Your task to perform on an android device: turn off wifi Image 0: 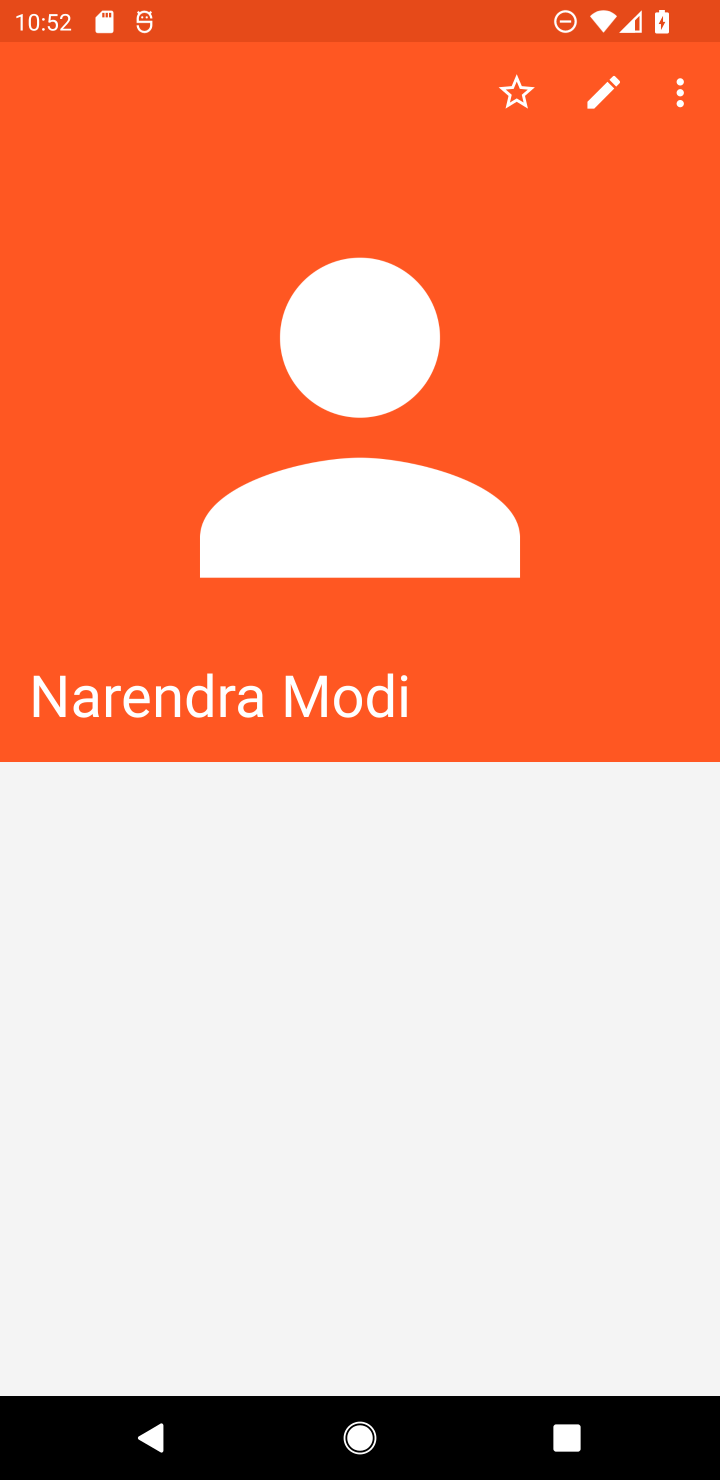
Step 0: press home button
Your task to perform on an android device: turn off wifi Image 1: 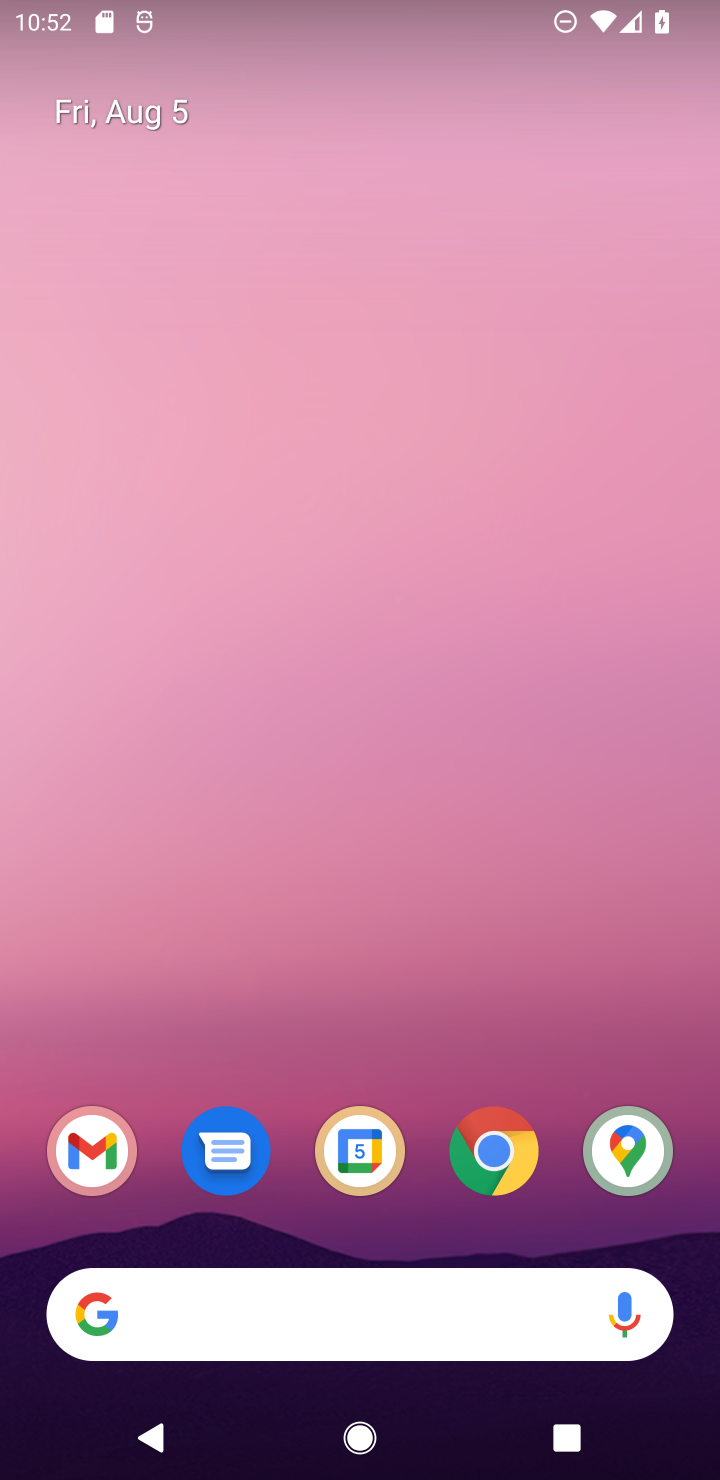
Step 1: drag from (350, 539) to (393, 352)
Your task to perform on an android device: turn off wifi Image 2: 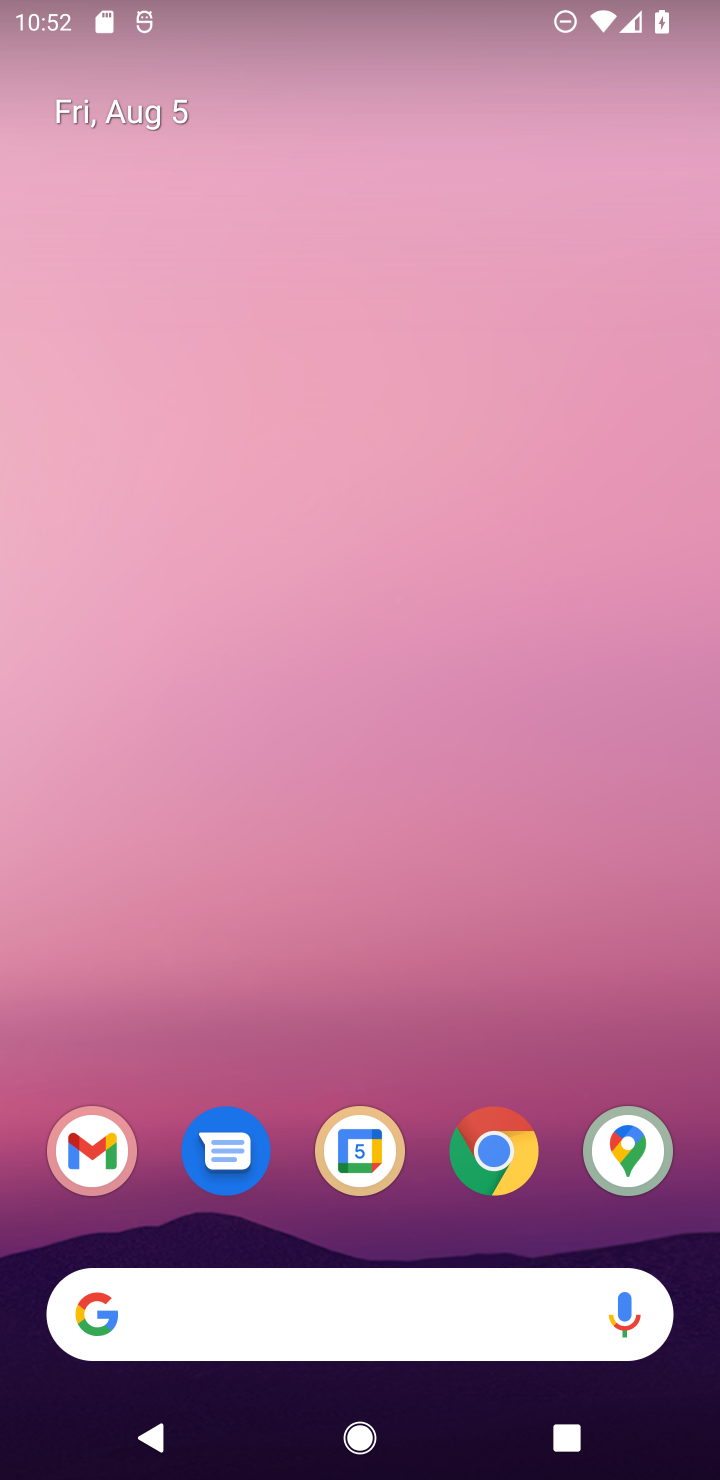
Step 2: drag from (327, 1184) to (300, 121)
Your task to perform on an android device: turn off wifi Image 3: 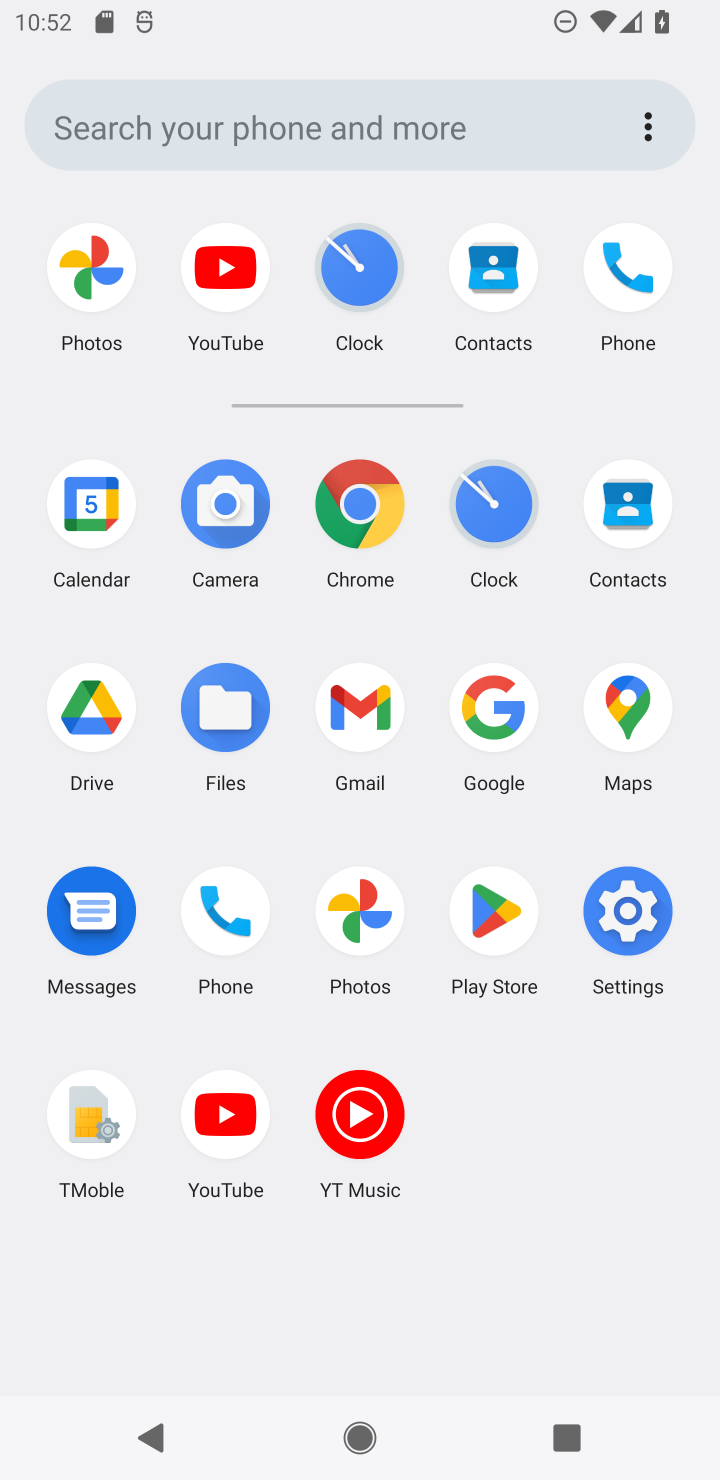
Step 3: click (625, 919)
Your task to perform on an android device: turn off wifi Image 4: 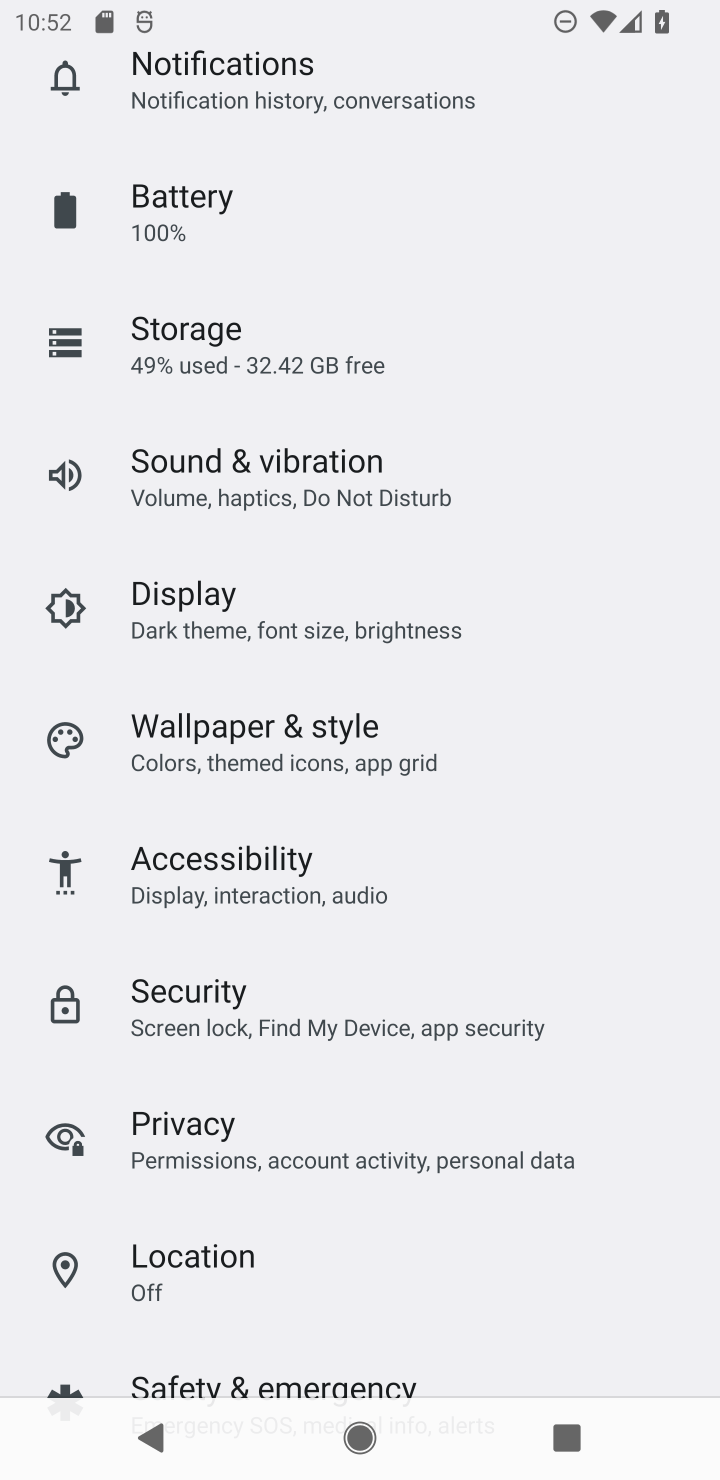
Step 4: drag from (362, 202) to (385, 949)
Your task to perform on an android device: turn off wifi Image 5: 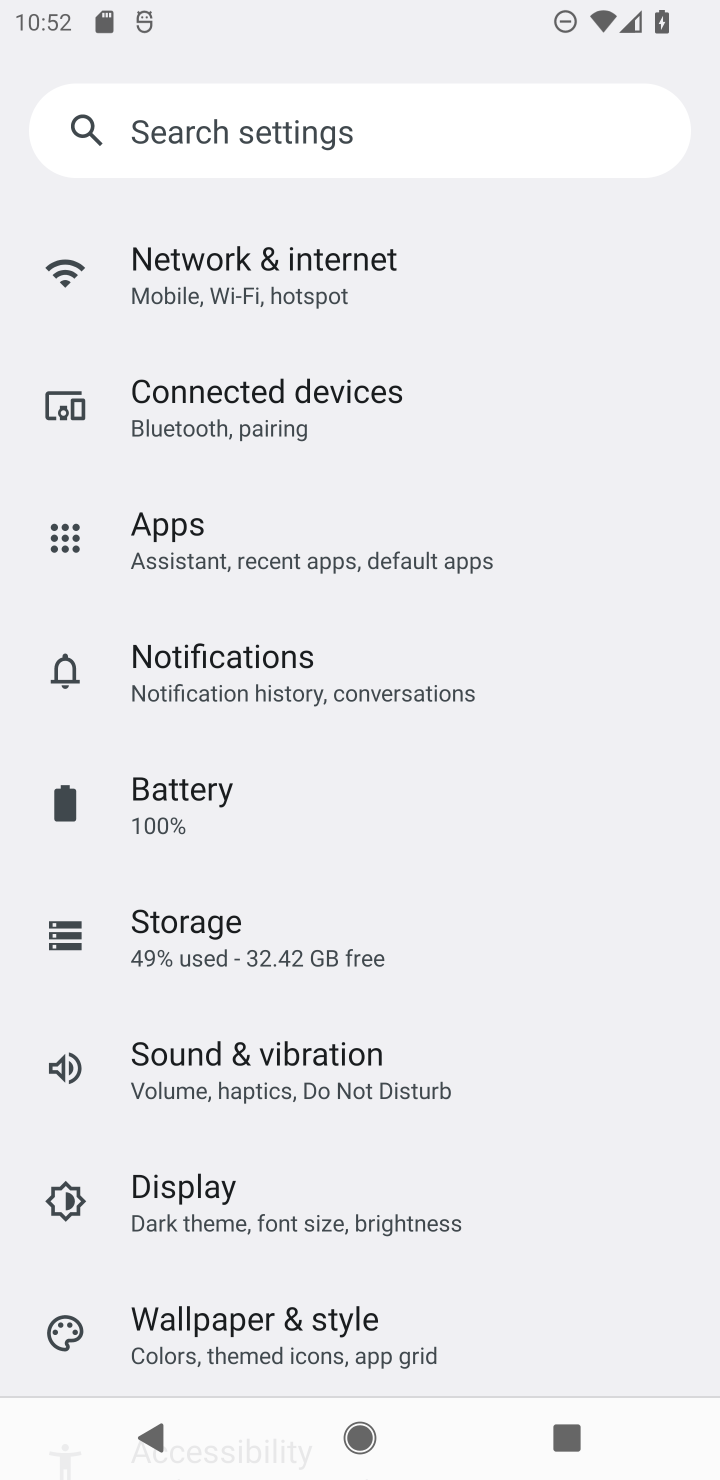
Step 5: drag from (388, 479) to (387, 880)
Your task to perform on an android device: turn off wifi Image 6: 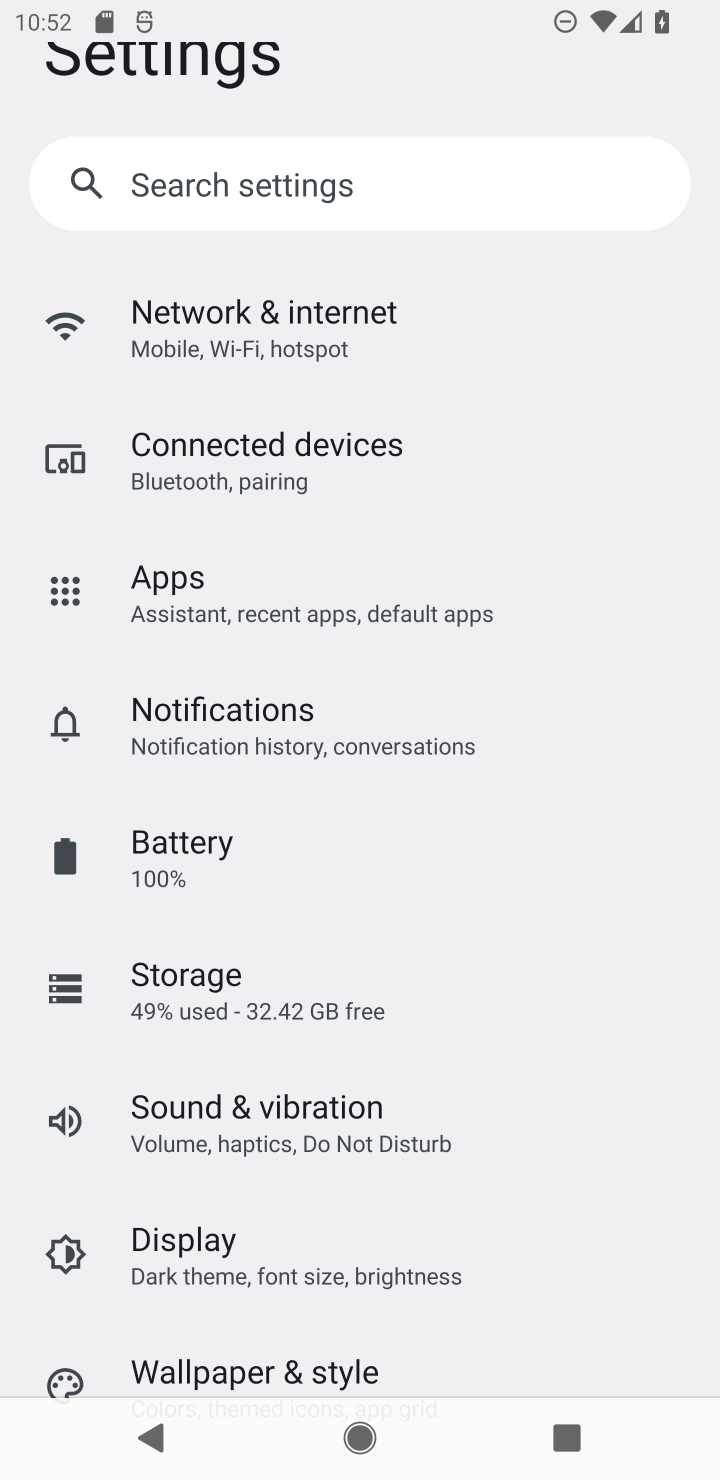
Step 6: click (306, 348)
Your task to perform on an android device: turn off wifi Image 7: 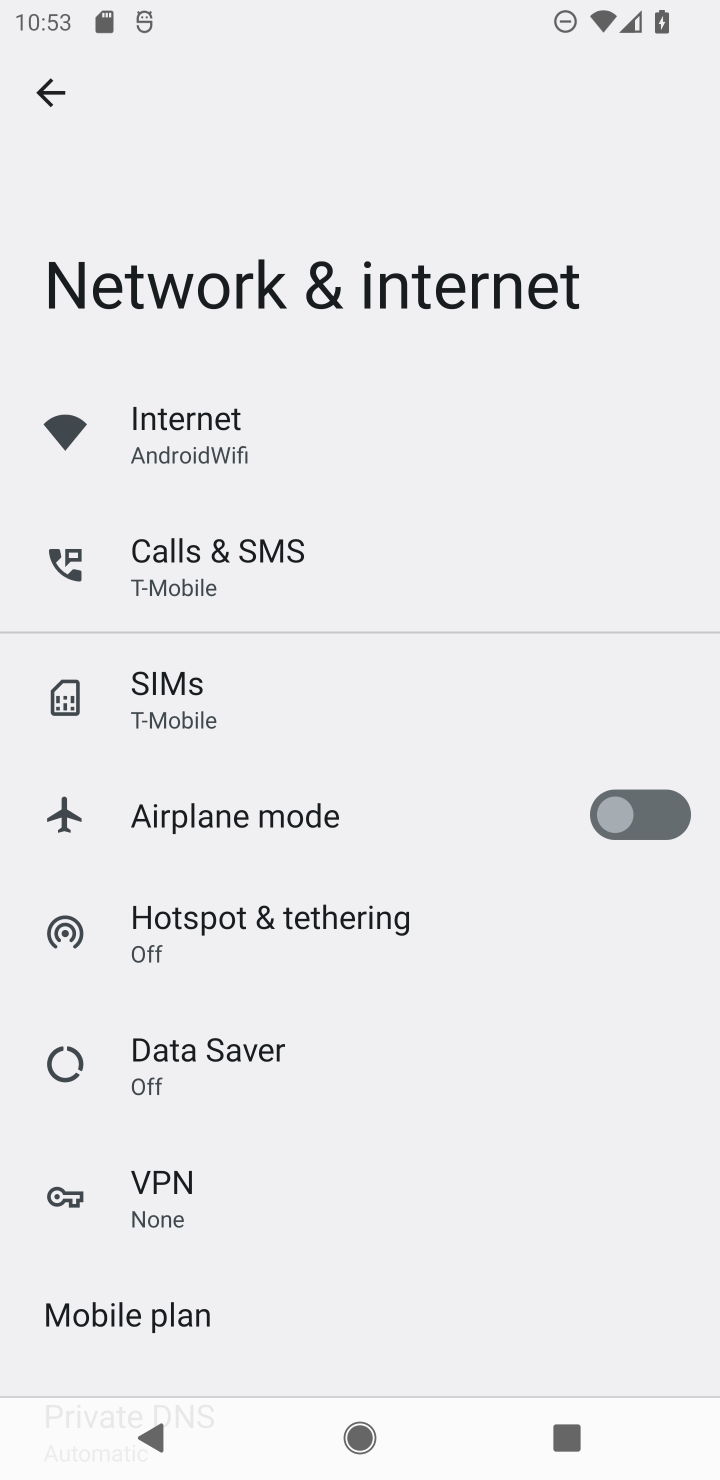
Step 7: click (209, 444)
Your task to perform on an android device: turn off wifi Image 8: 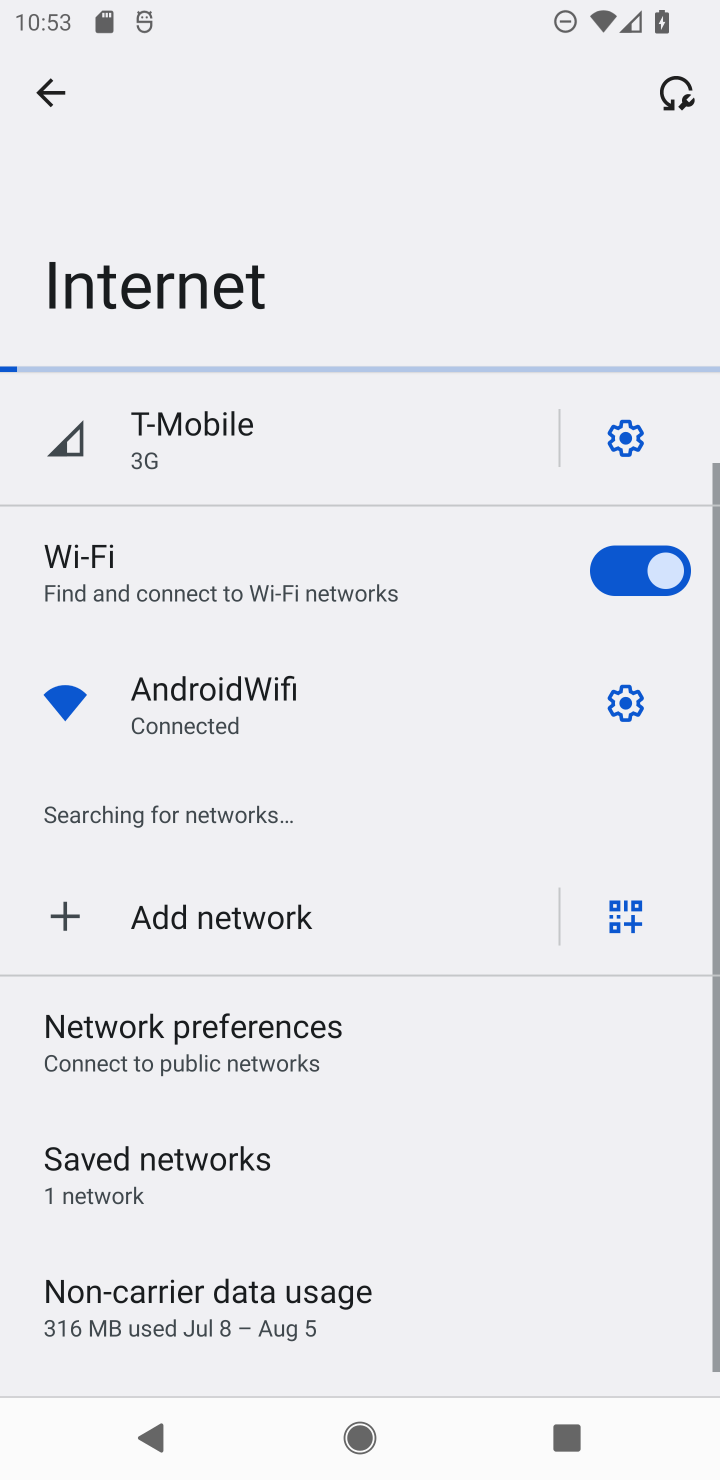
Step 8: click (610, 571)
Your task to perform on an android device: turn off wifi Image 9: 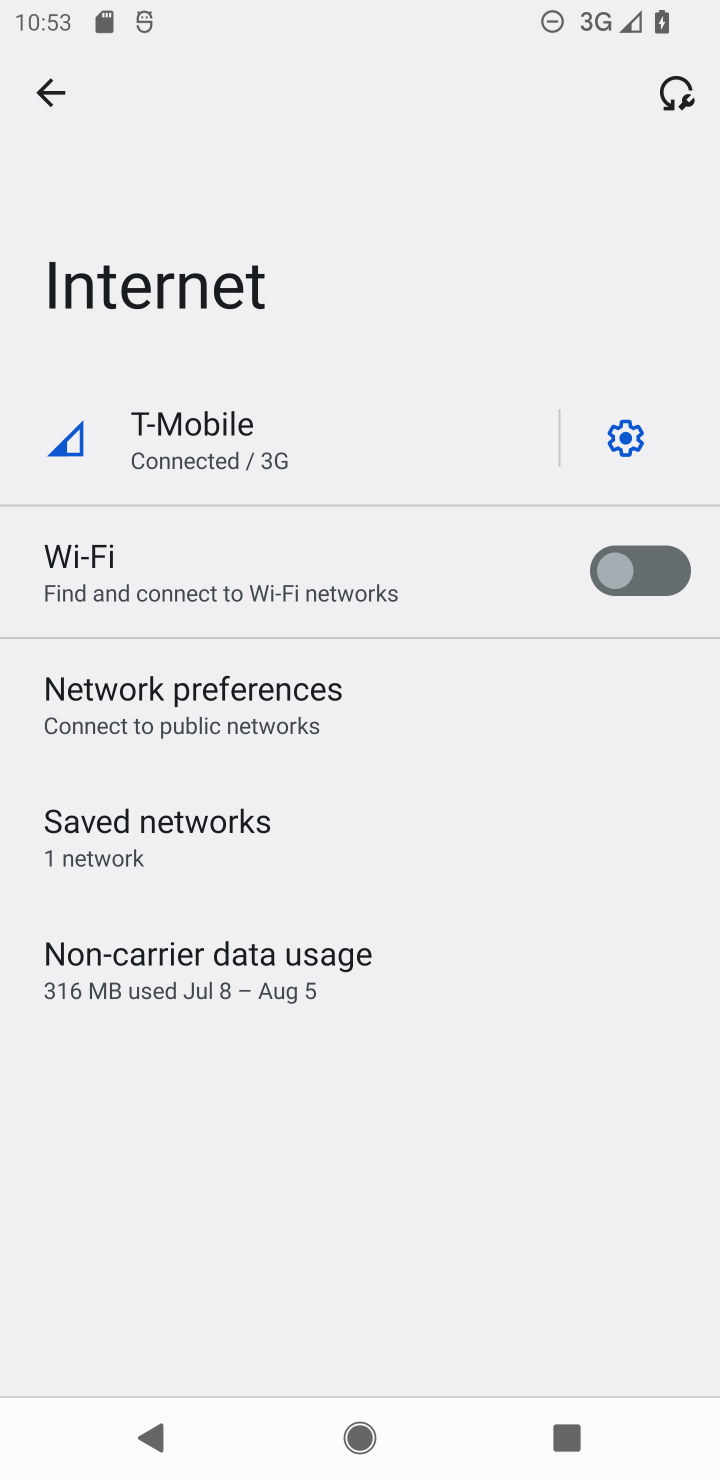
Step 9: task complete